Your task to perform on an android device: turn off picture-in-picture Image 0: 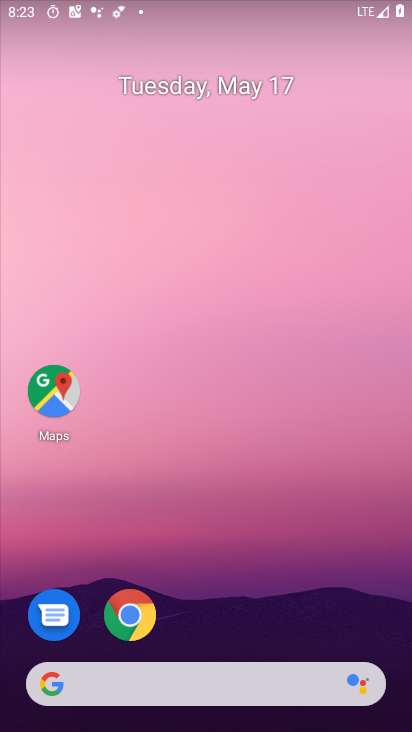
Step 0: drag from (268, 593) to (310, 88)
Your task to perform on an android device: turn off picture-in-picture Image 1: 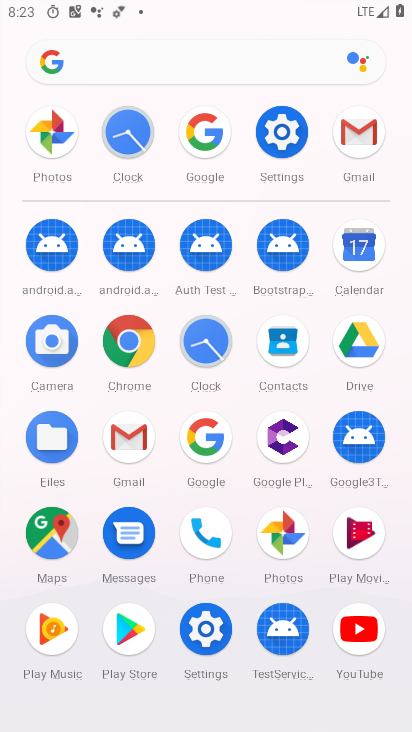
Step 1: click (272, 145)
Your task to perform on an android device: turn off picture-in-picture Image 2: 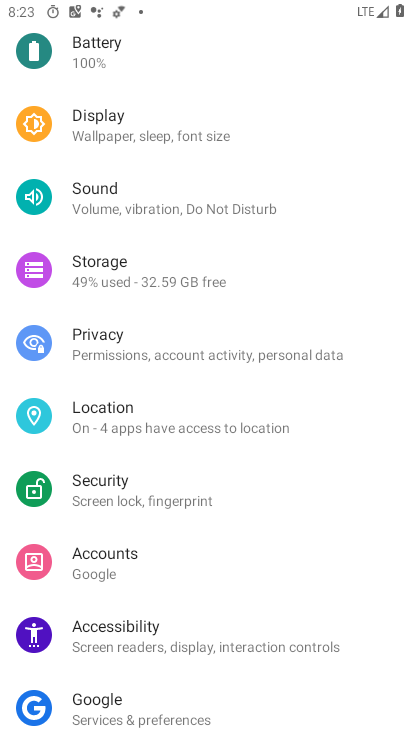
Step 2: drag from (211, 160) to (247, 568)
Your task to perform on an android device: turn off picture-in-picture Image 3: 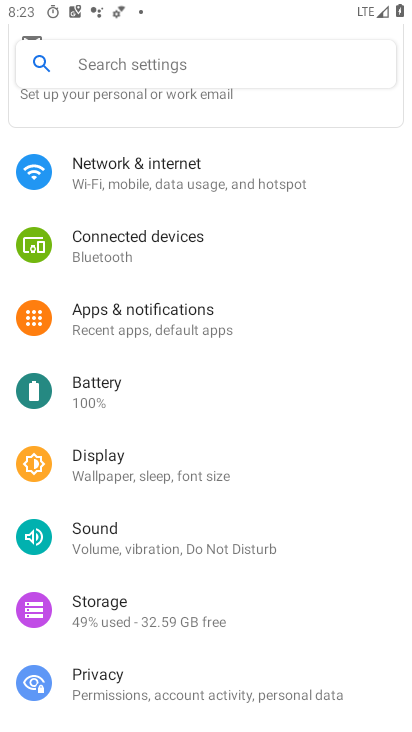
Step 3: click (186, 336)
Your task to perform on an android device: turn off picture-in-picture Image 4: 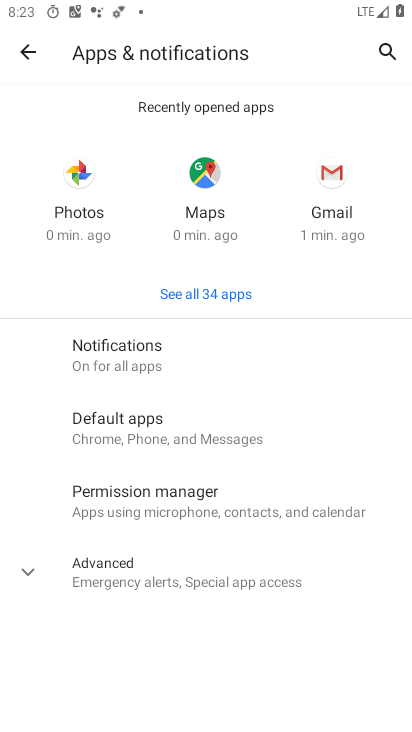
Step 4: click (66, 560)
Your task to perform on an android device: turn off picture-in-picture Image 5: 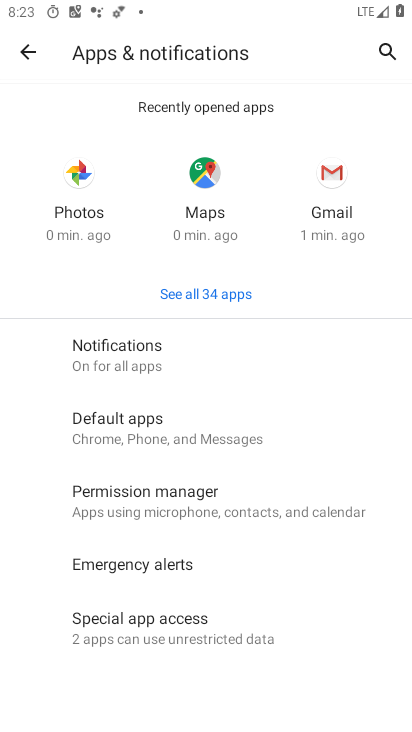
Step 5: click (112, 643)
Your task to perform on an android device: turn off picture-in-picture Image 6: 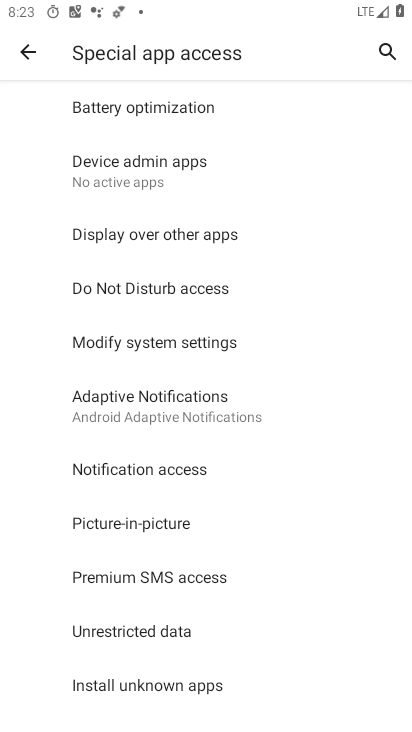
Step 6: click (152, 517)
Your task to perform on an android device: turn off picture-in-picture Image 7: 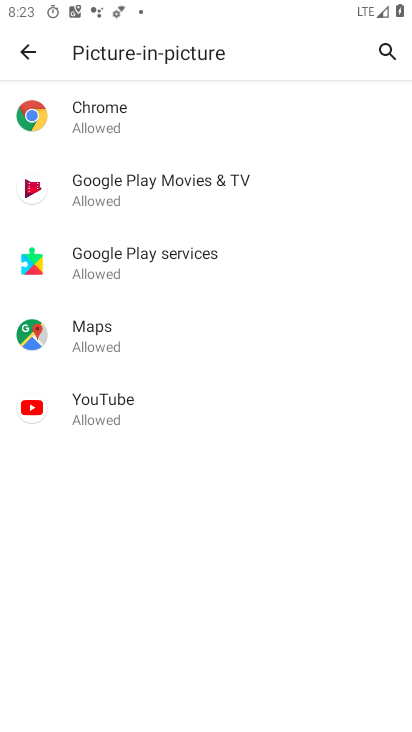
Step 7: click (180, 137)
Your task to perform on an android device: turn off picture-in-picture Image 8: 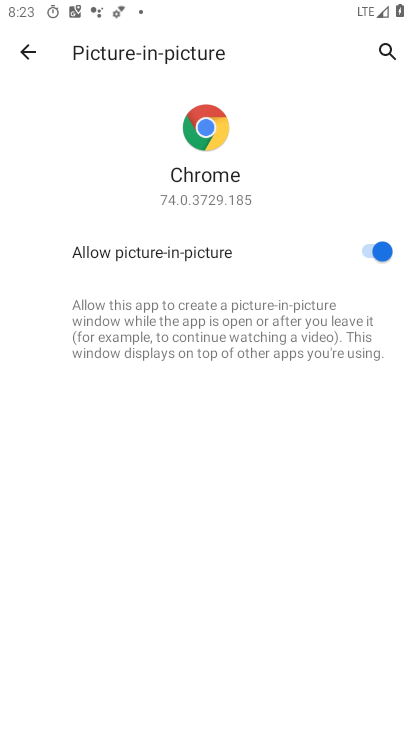
Step 8: click (389, 249)
Your task to perform on an android device: turn off picture-in-picture Image 9: 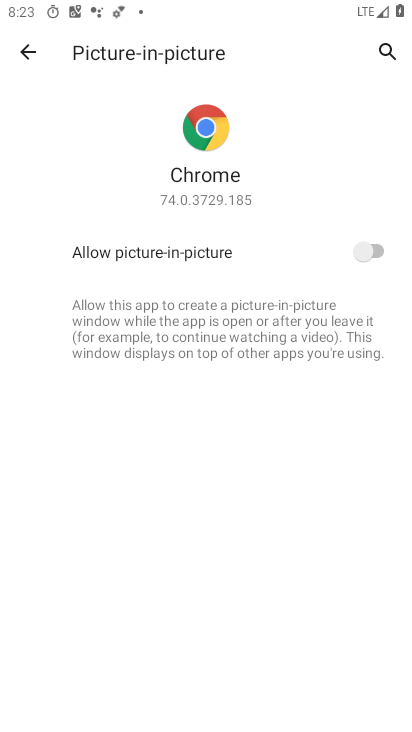
Step 9: task complete